Your task to perform on an android device: turn off smart reply in the gmail app Image 0: 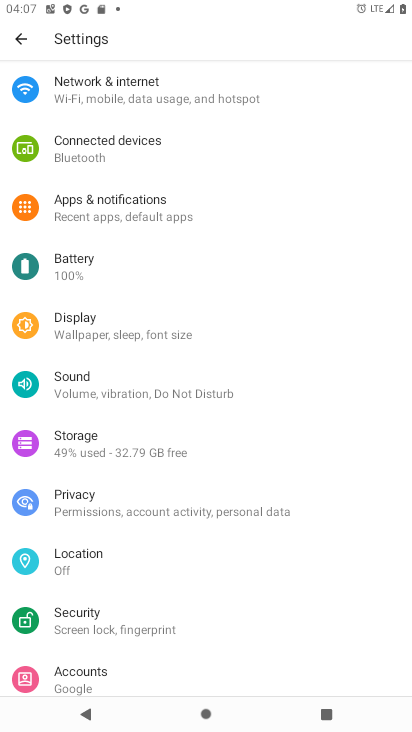
Step 0: press home button
Your task to perform on an android device: turn off smart reply in the gmail app Image 1: 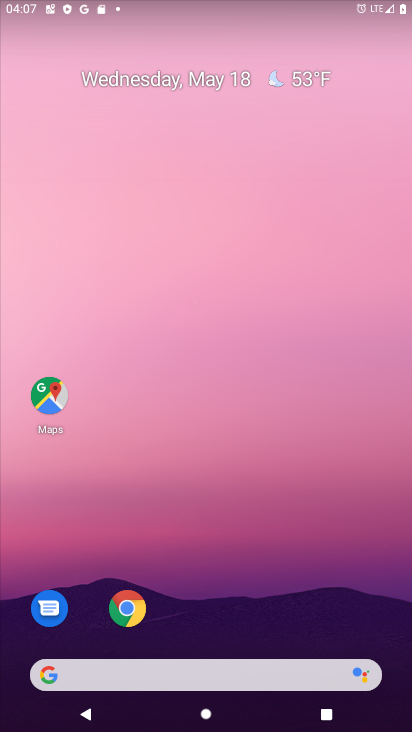
Step 1: drag from (259, 626) to (253, 42)
Your task to perform on an android device: turn off smart reply in the gmail app Image 2: 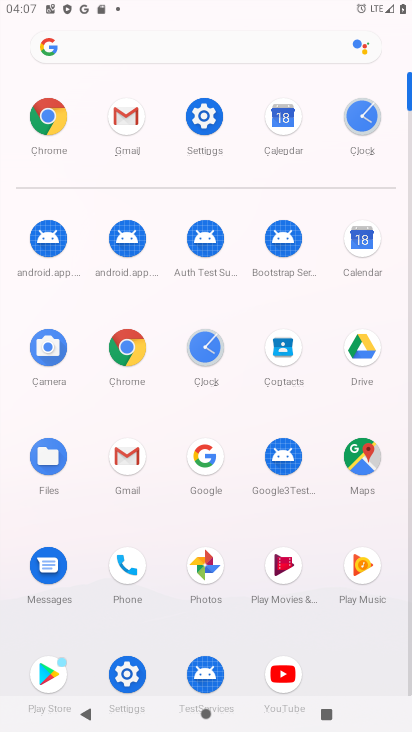
Step 2: click (113, 124)
Your task to perform on an android device: turn off smart reply in the gmail app Image 3: 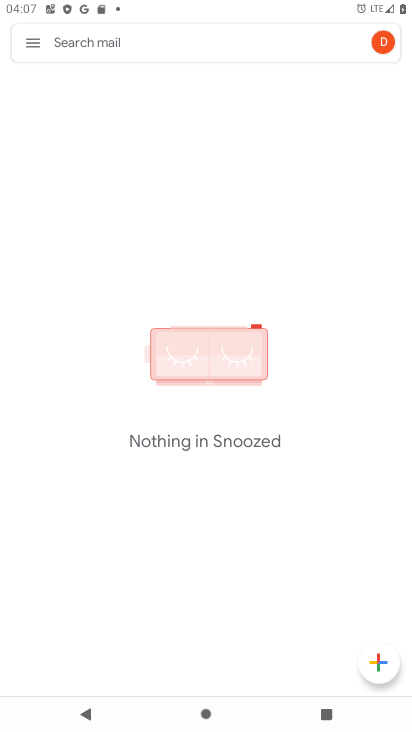
Step 3: click (30, 46)
Your task to perform on an android device: turn off smart reply in the gmail app Image 4: 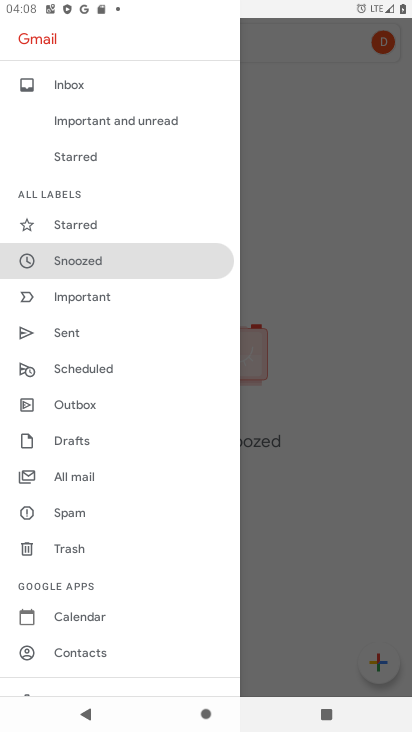
Step 4: drag from (132, 609) to (129, 493)
Your task to perform on an android device: turn off smart reply in the gmail app Image 5: 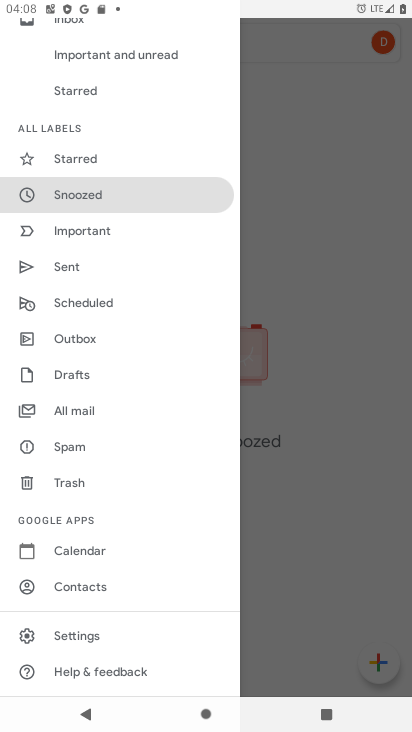
Step 5: click (55, 636)
Your task to perform on an android device: turn off smart reply in the gmail app Image 6: 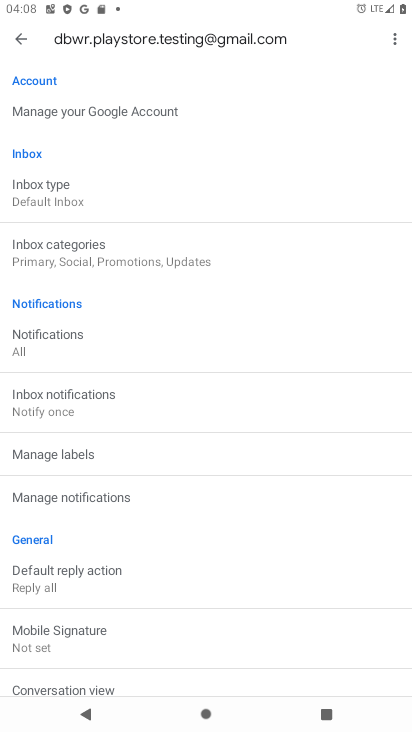
Step 6: task complete